Your task to perform on an android device: Show me productivity apps on the Play Store Image 0: 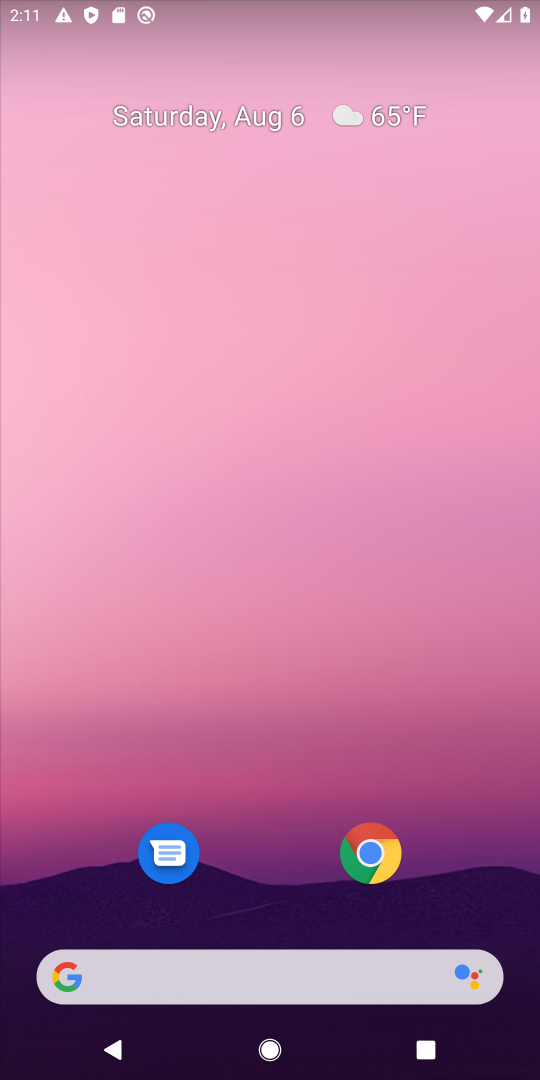
Step 0: drag from (297, 722) to (331, 120)
Your task to perform on an android device: Show me productivity apps on the Play Store Image 1: 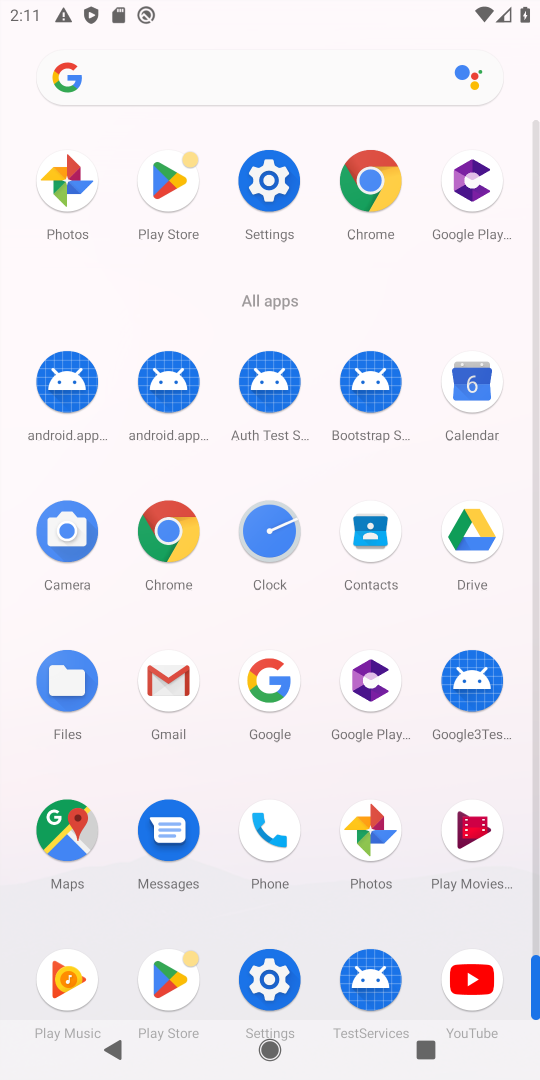
Step 1: click (172, 989)
Your task to perform on an android device: Show me productivity apps on the Play Store Image 2: 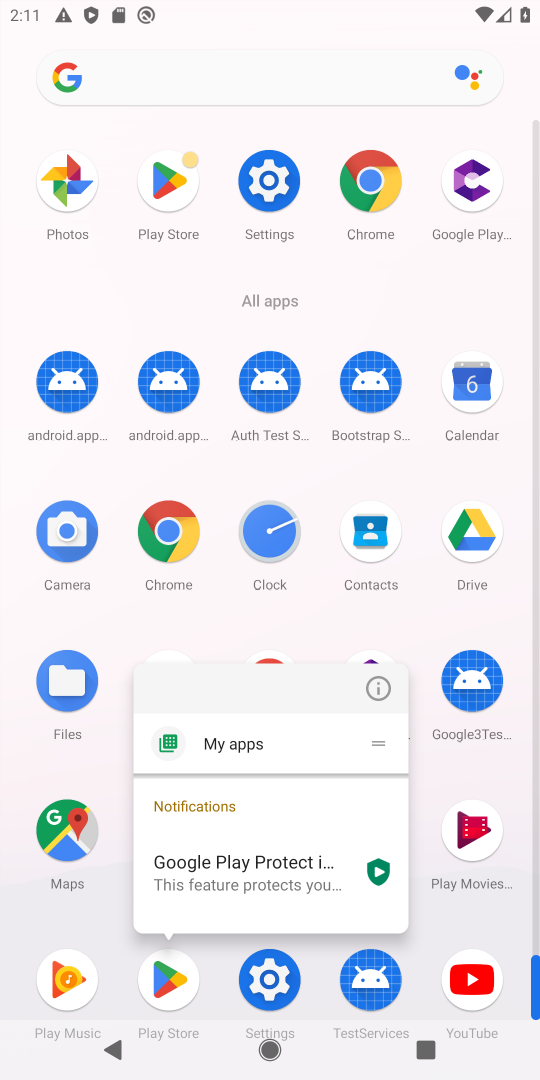
Step 2: click (169, 982)
Your task to perform on an android device: Show me productivity apps on the Play Store Image 3: 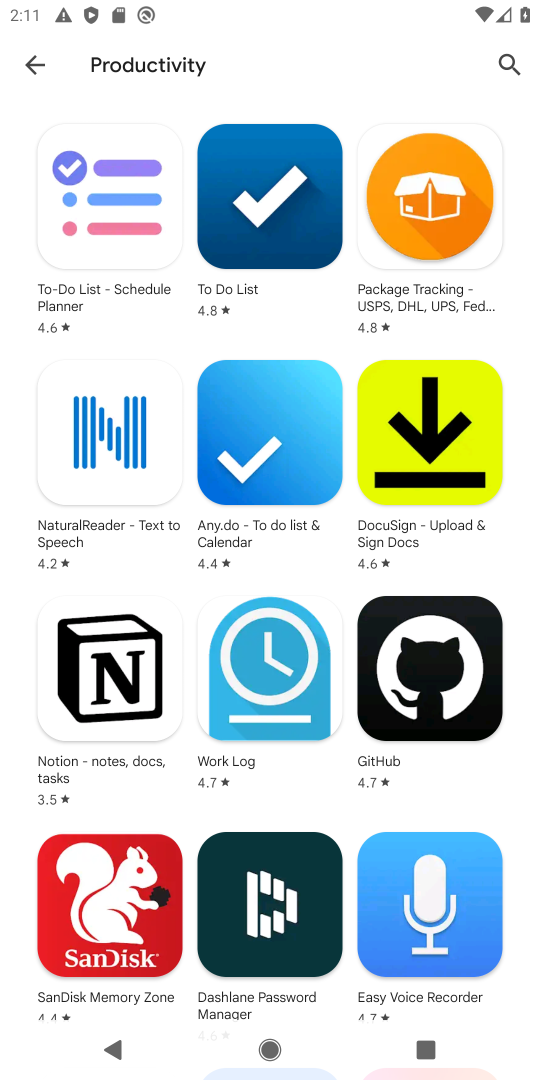
Step 3: task complete